Your task to perform on an android device: toggle location history Image 0: 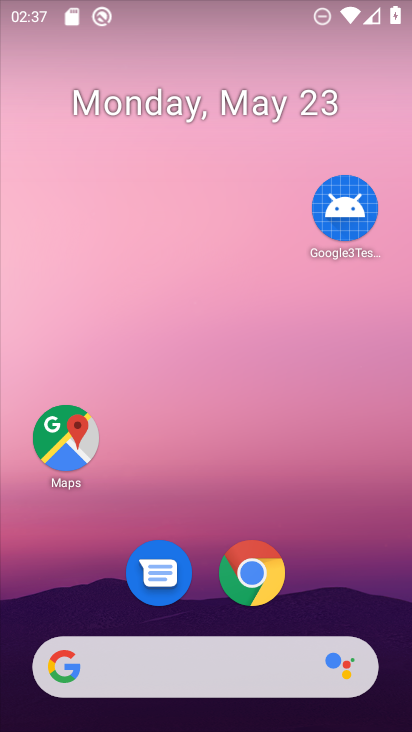
Step 0: drag from (341, 519) to (305, 72)
Your task to perform on an android device: toggle location history Image 1: 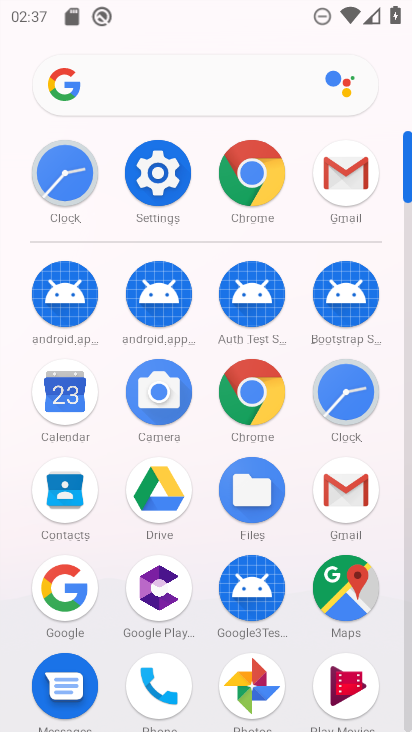
Step 1: click (168, 164)
Your task to perform on an android device: toggle location history Image 2: 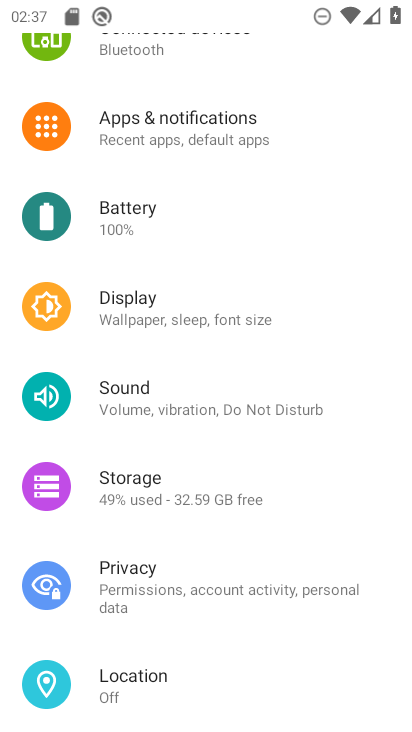
Step 2: drag from (274, 604) to (294, 158)
Your task to perform on an android device: toggle location history Image 3: 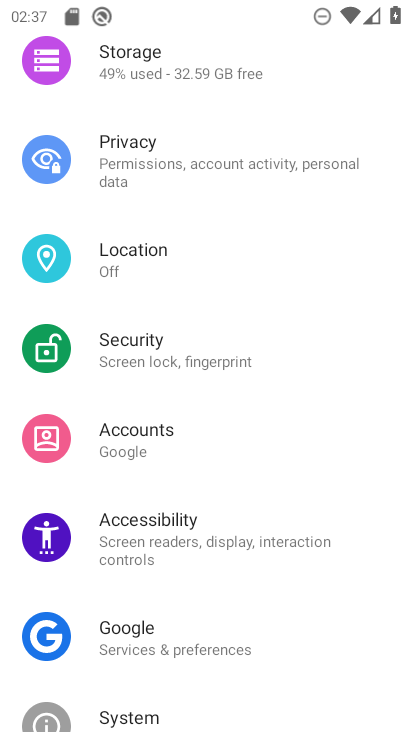
Step 3: drag from (247, 587) to (234, 424)
Your task to perform on an android device: toggle location history Image 4: 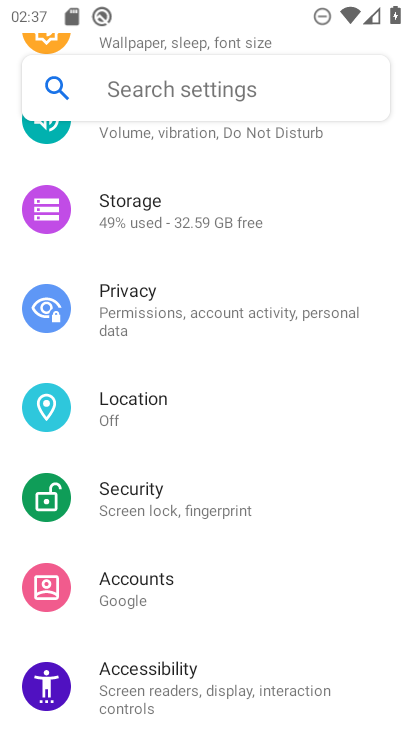
Step 4: click (173, 340)
Your task to perform on an android device: toggle location history Image 5: 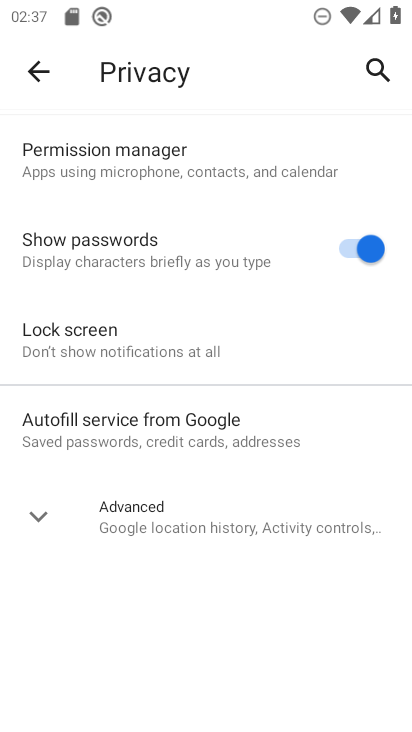
Step 5: click (49, 69)
Your task to perform on an android device: toggle location history Image 6: 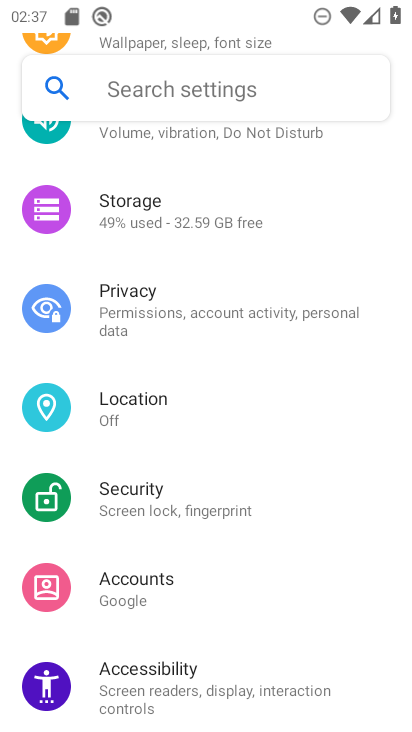
Step 6: click (166, 421)
Your task to perform on an android device: toggle location history Image 7: 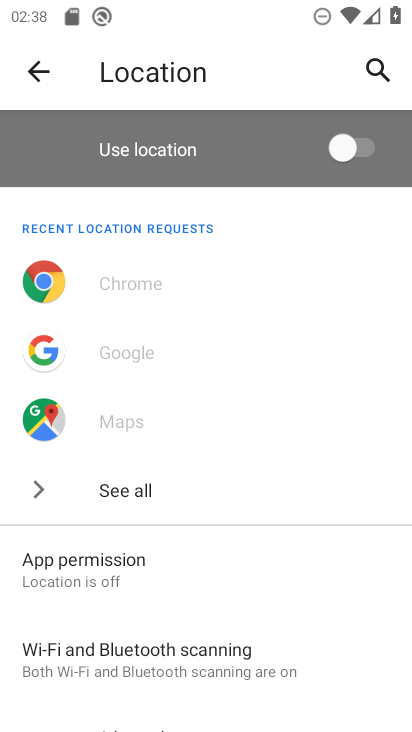
Step 7: drag from (250, 413) to (301, 178)
Your task to perform on an android device: toggle location history Image 8: 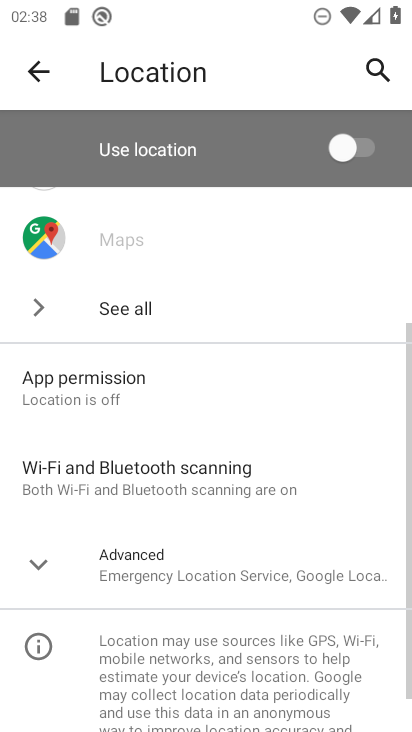
Step 8: click (194, 564)
Your task to perform on an android device: toggle location history Image 9: 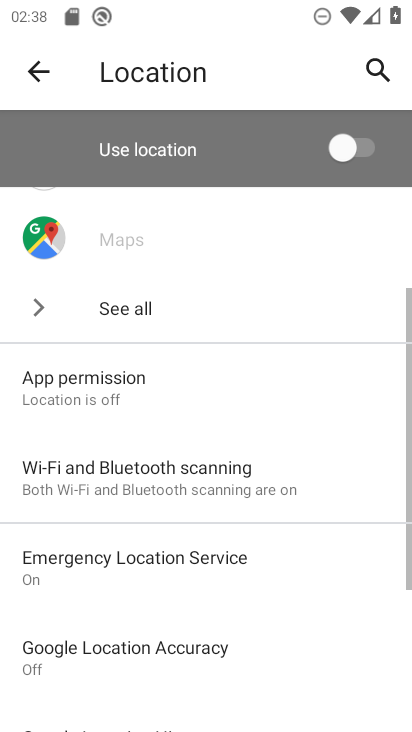
Step 9: drag from (316, 585) to (333, 154)
Your task to perform on an android device: toggle location history Image 10: 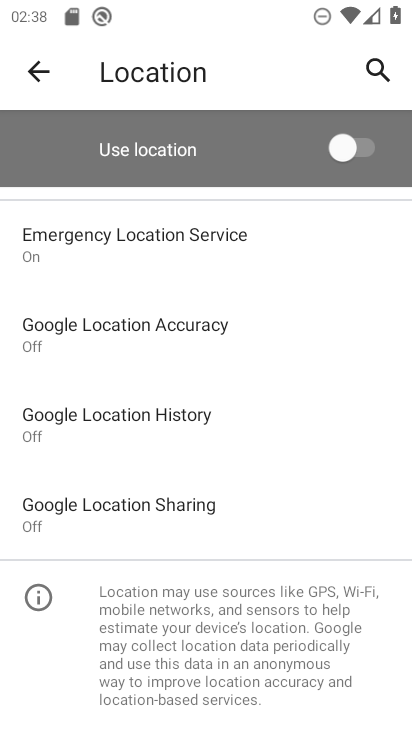
Step 10: click (170, 422)
Your task to perform on an android device: toggle location history Image 11: 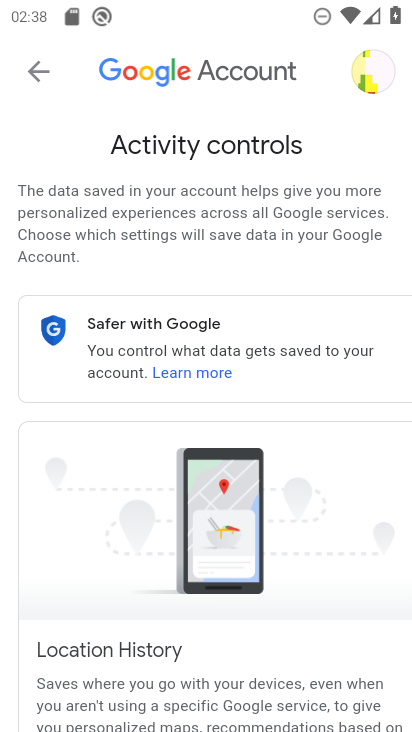
Step 11: drag from (277, 501) to (273, 43)
Your task to perform on an android device: toggle location history Image 12: 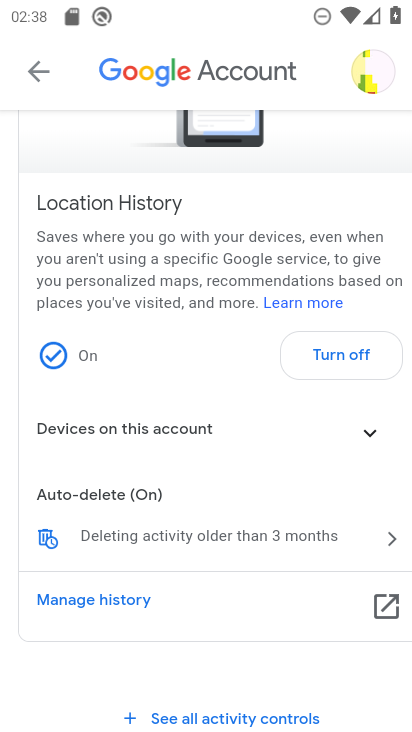
Step 12: click (332, 348)
Your task to perform on an android device: toggle location history Image 13: 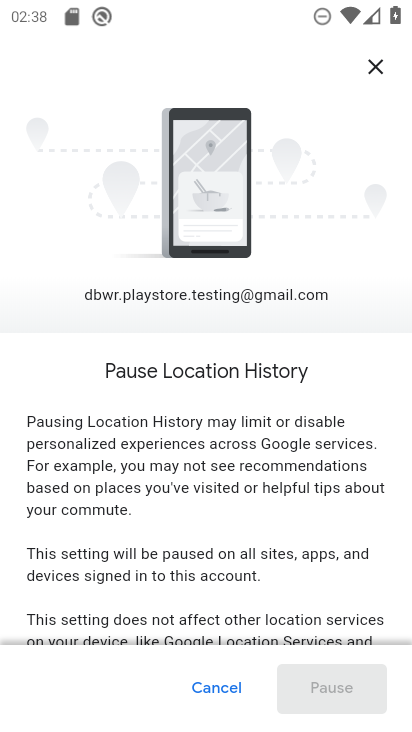
Step 13: drag from (261, 524) to (283, 113)
Your task to perform on an android device: toggle location history Image 14: 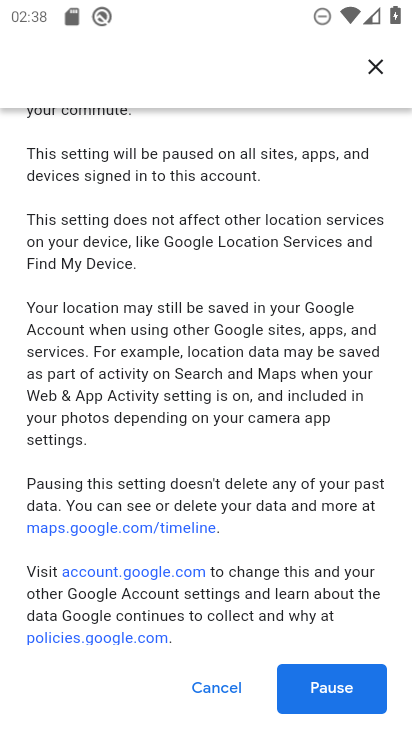
Step 14: drag from (282, 580) to (319, 260)
Your task to perform on an android device: toggle location history Image 15: 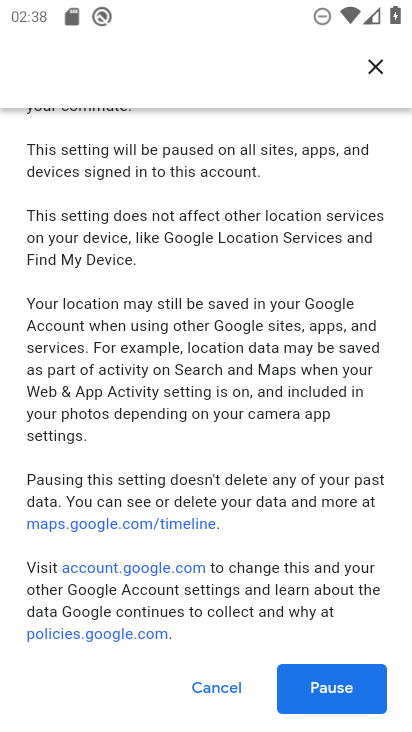
Step 15: click (350, 711)
Your task to perform on an android device: toggle location history Image 16: 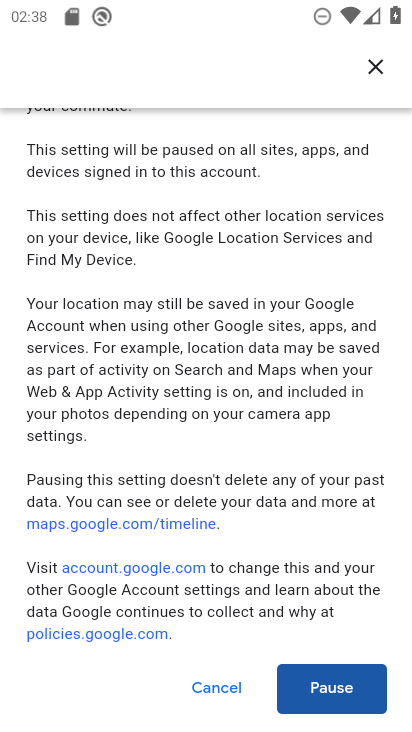
Step 16: click (345, 691)
Your task to perform on an android device: toggle location history Image 17: 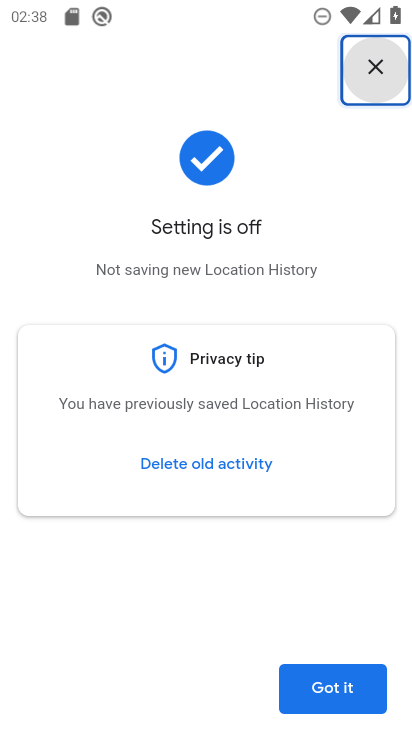
Step 17: task complete